Your task to perform on an android device: open the mobile data screen to see how much data has been used Image 0: 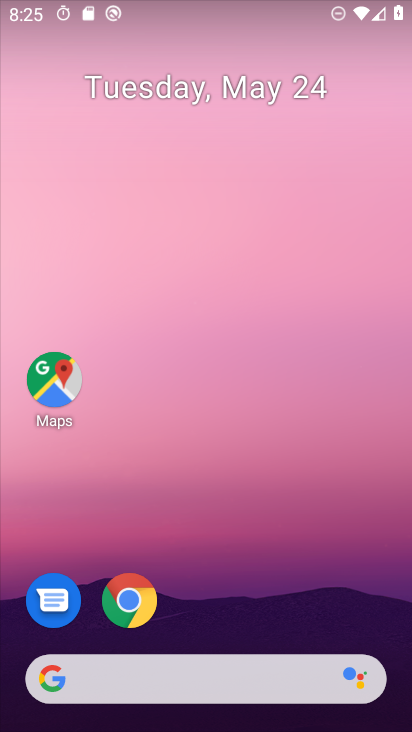
Step 0: drag from (263, 670) to (258, 89)
Your task to perform on an android device: open the mobile data screen to see how much data has been used Image 1: 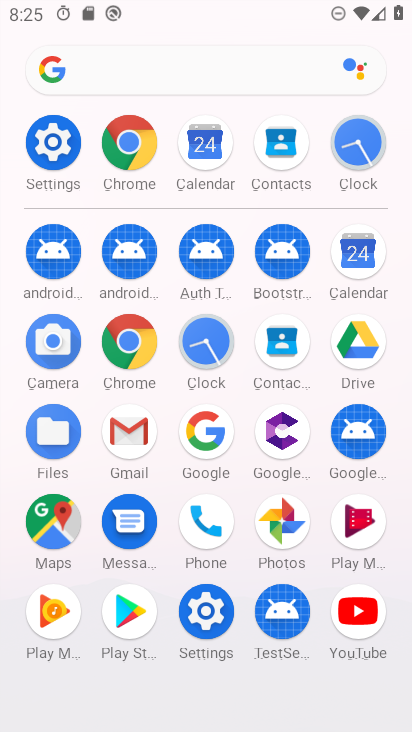
Step 1: click (54, 139)
Your task to perform on an android device: open the mobile data screen to see how much data has been used Image 2: 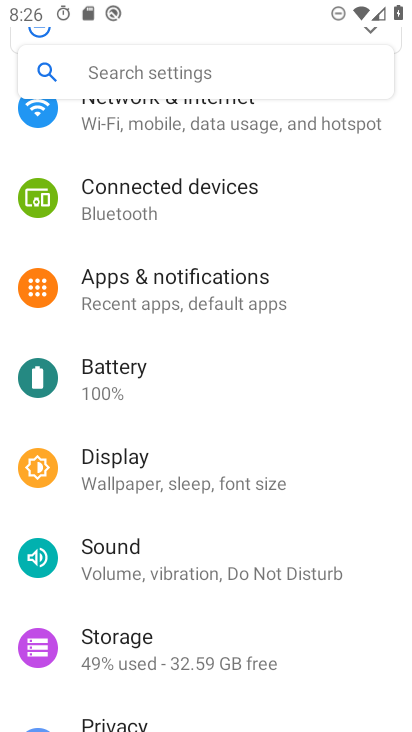
Step 2: click (210, 131)
Your task to perform on an android device: open the mobile data screen to see how much data has been used Image 3: 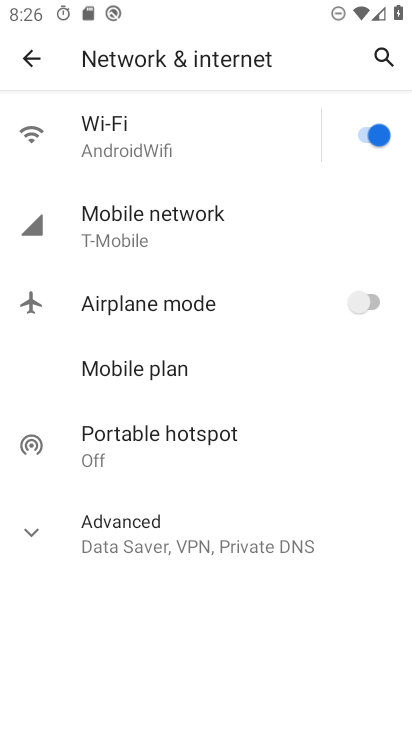
Step 3: click (144, 236)
Your task to perform on an android device: open the mobile data screen to see how much data has been used Image 4: 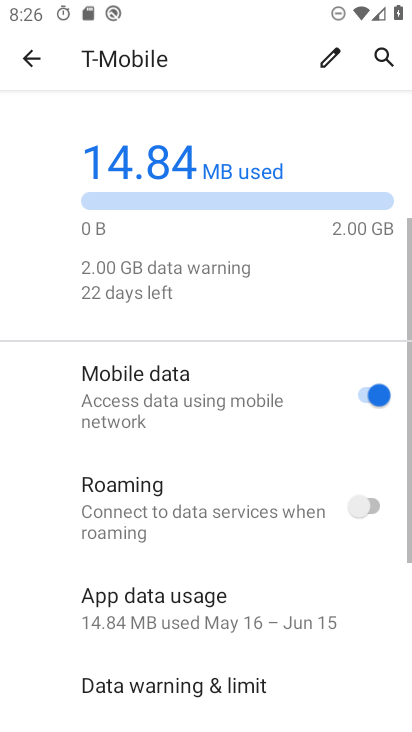
Step 4: click (187, 597)
Your task to perform on an android device: open the mobile data screen to see how much data has been used Image 5: 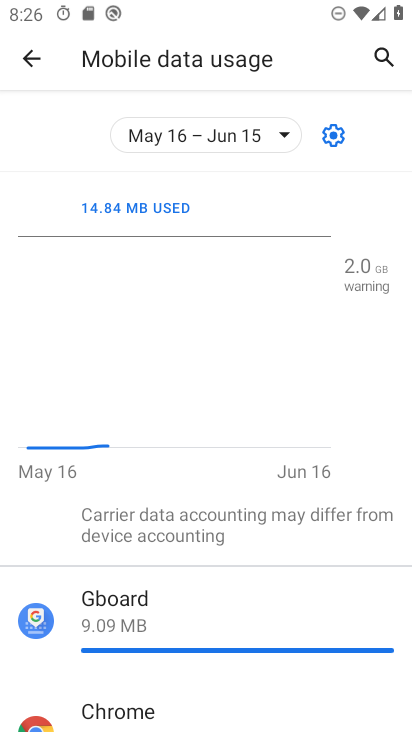
Step 5: task complete